Your task to perform on an android device: find which apps use the phone's location Image 0: 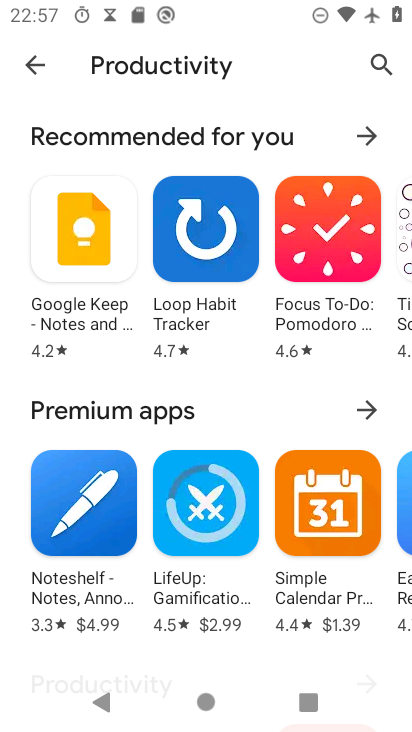
Step 0: press home button
Your task to perform on an android device: find which apps use the phone's location Image 1: 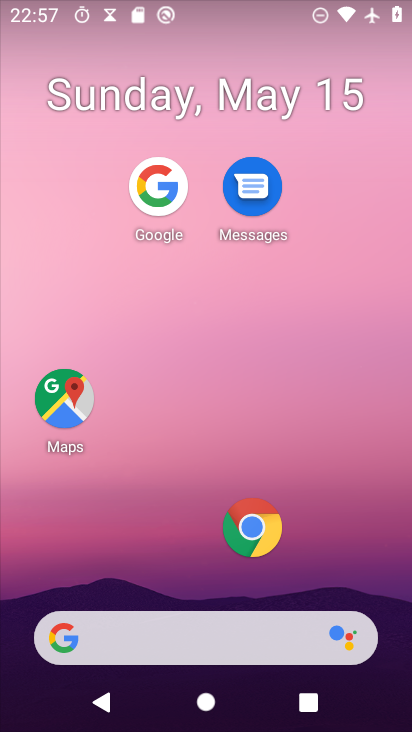
Step 1: drag from (209, 638) to (336, 235)
Your task to perform on an android device: find which apps use the phone's location Image 2: 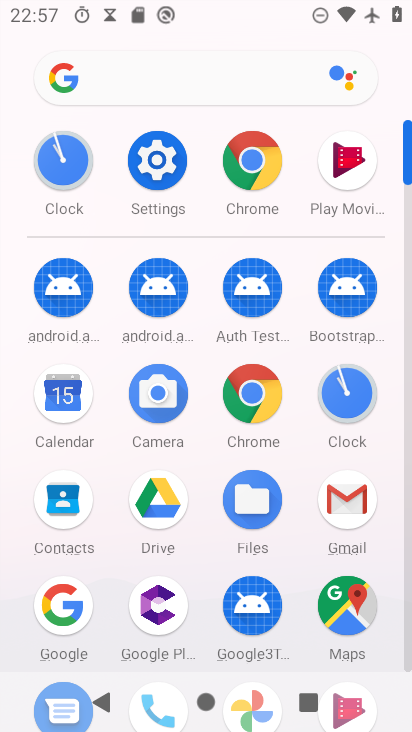
Step 2: click (156, 165)
Your task to perform on an android device: find which apps use the phone's location Image 3: 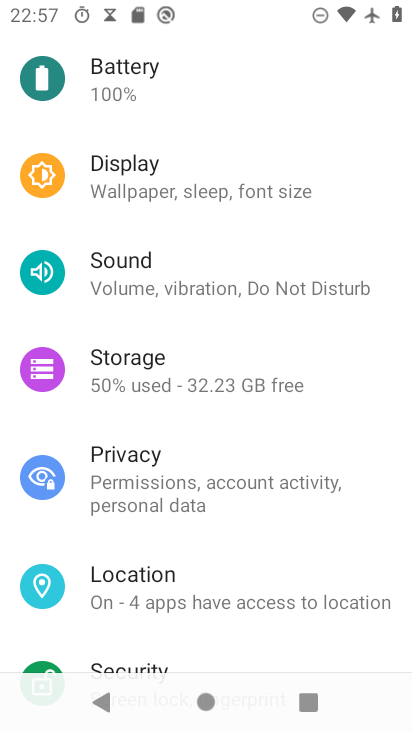
Step 3: click (157, 584)
Your task to perform on an android device: find which apps use the phone's location Image 4: 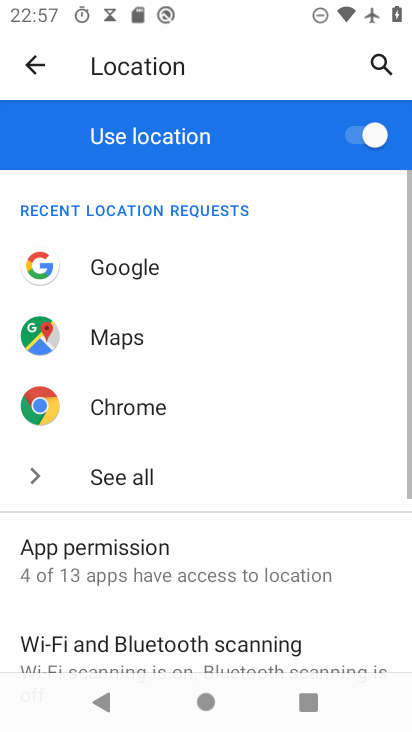
Step 4: click (130, 563)
Your task to perform on an android device: find which apps use the phone's location Image 5: 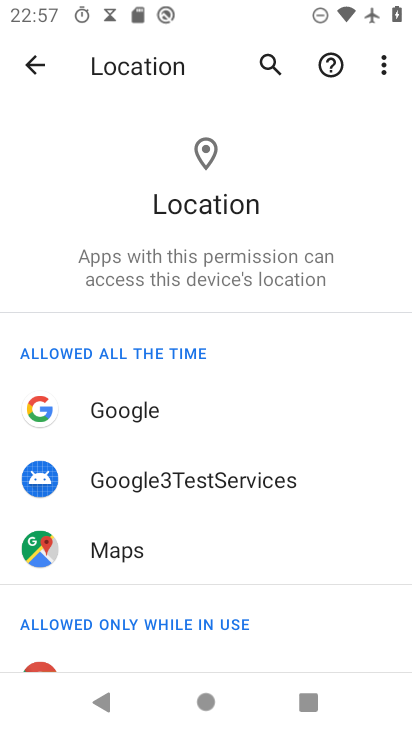
Step 5: drag from (176, 571) to (320, 266)
Your task to perform on an android device: find which apps use the phone's location Image 6: 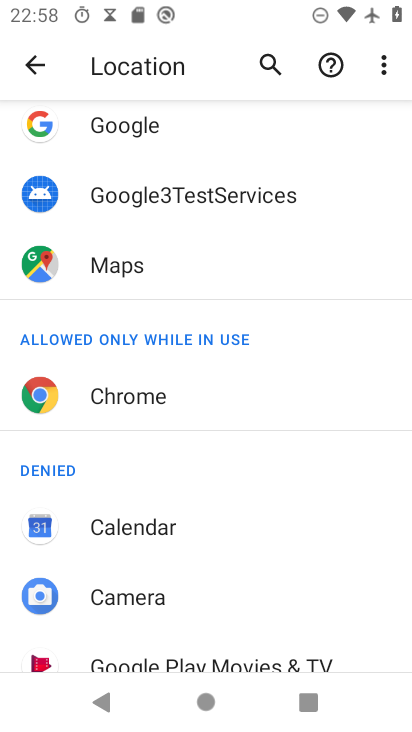
Step 6: drag from (207, 598) to (322, 387)
Your task to perform on an android device: find which apps use the phone's location Image 7: 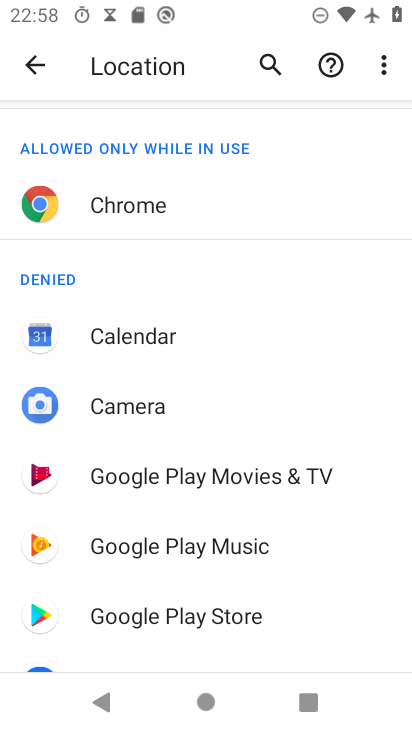
Step 7: drag from (188, 630) to (352, 182)
Your task to perform on an android device: find which apps use the phone's location Image 8: 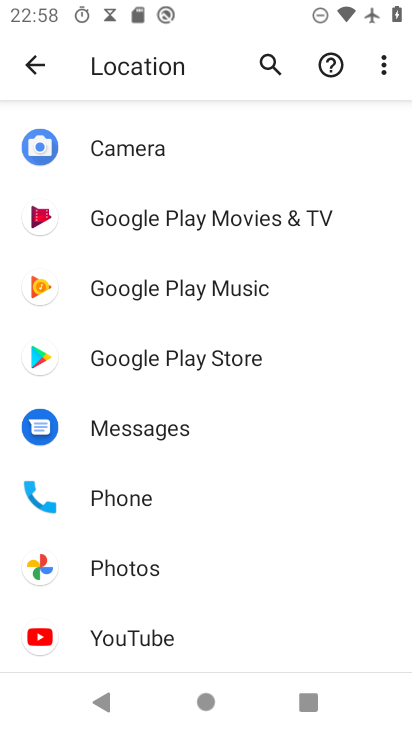
Step 8: click (123, 497)
Your task to perform on an android device: find which apps use the phone's location Image 9: 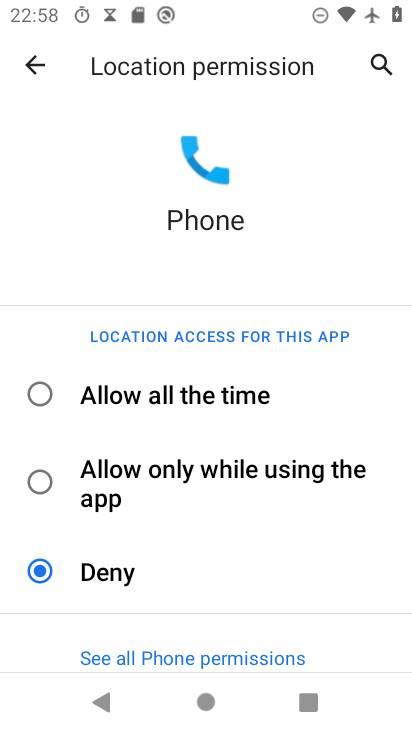
Step 9: task complete